Your task to perform on an android device: Show me some nice wallpapers for my phone Image 0: 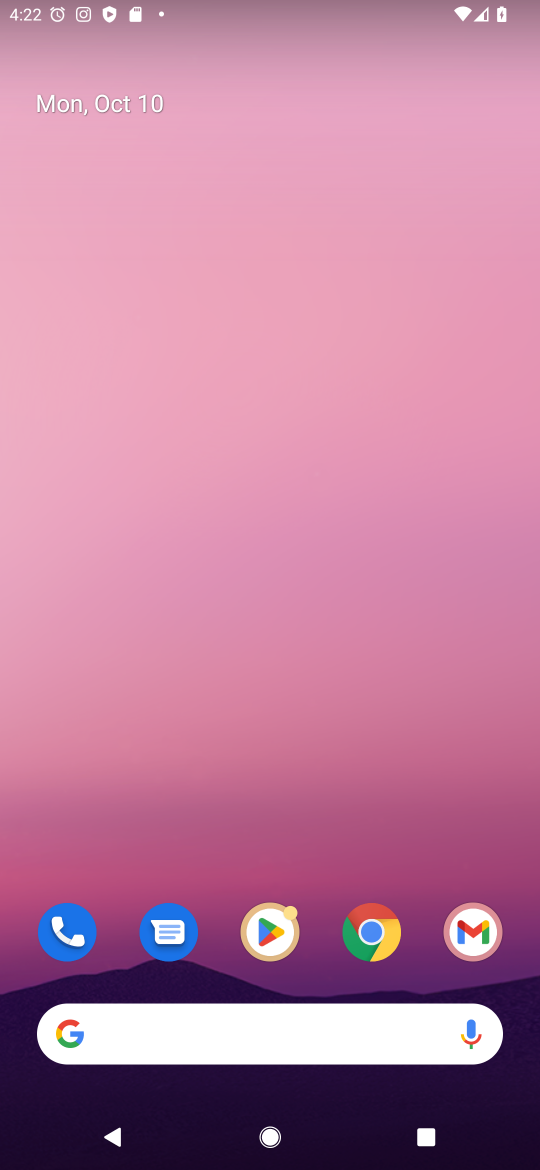
Step 0: press home button
Your task to perform on an android device: Show me some nice wallpapers for my phone Image 1: 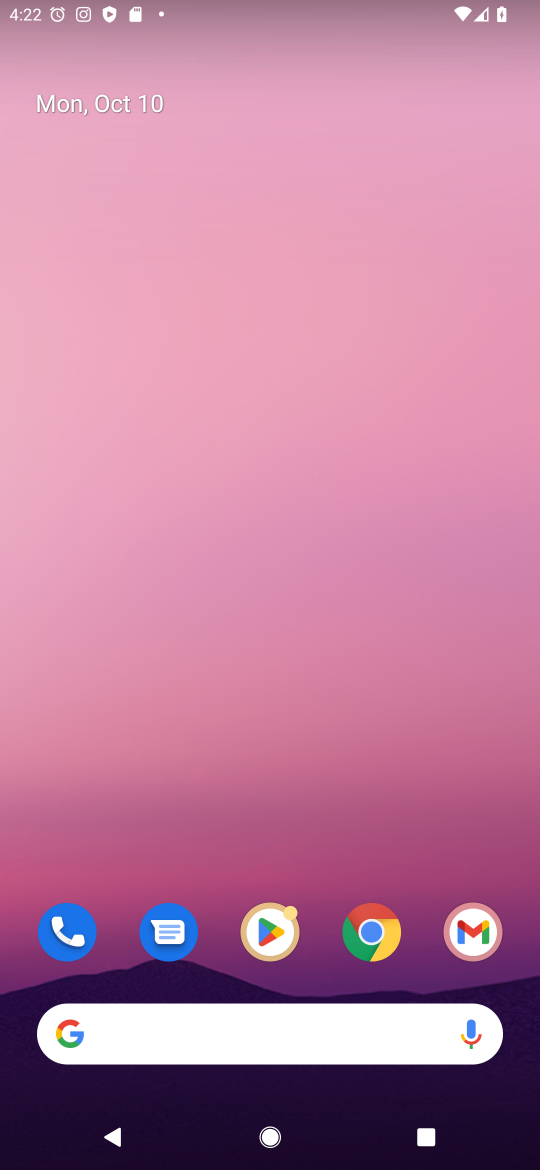
Step 1: click (352, 1044)
Your task to perform on an android device: Show me some nice wallpapers for my phone Image 2: 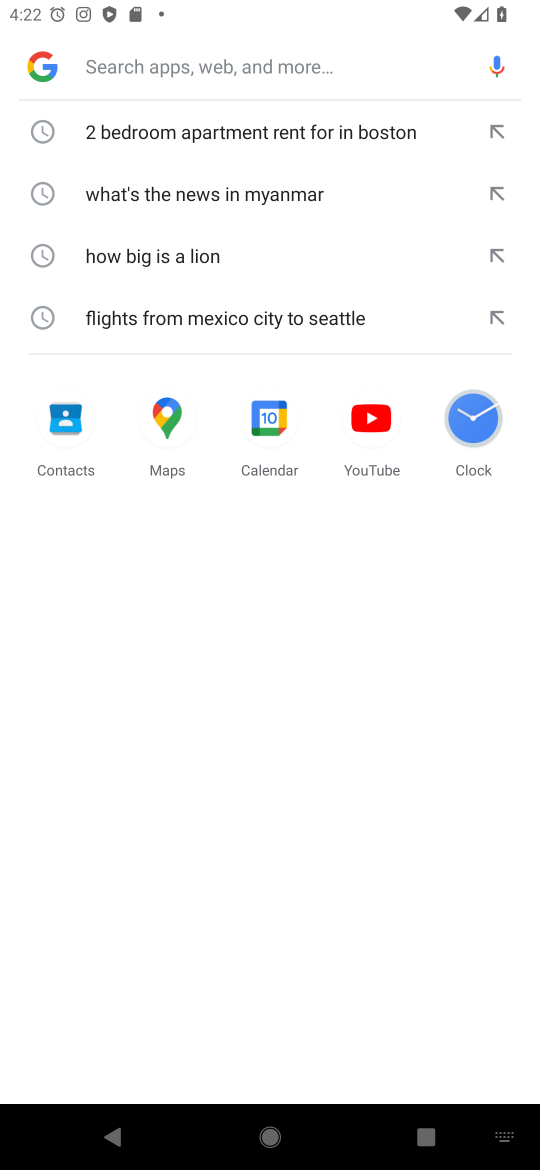
Step 2: type "Show me some nice wallpapers for my phone"
Your task to perform on an android device: Show me some nice wallpapers for my phone Image 3: 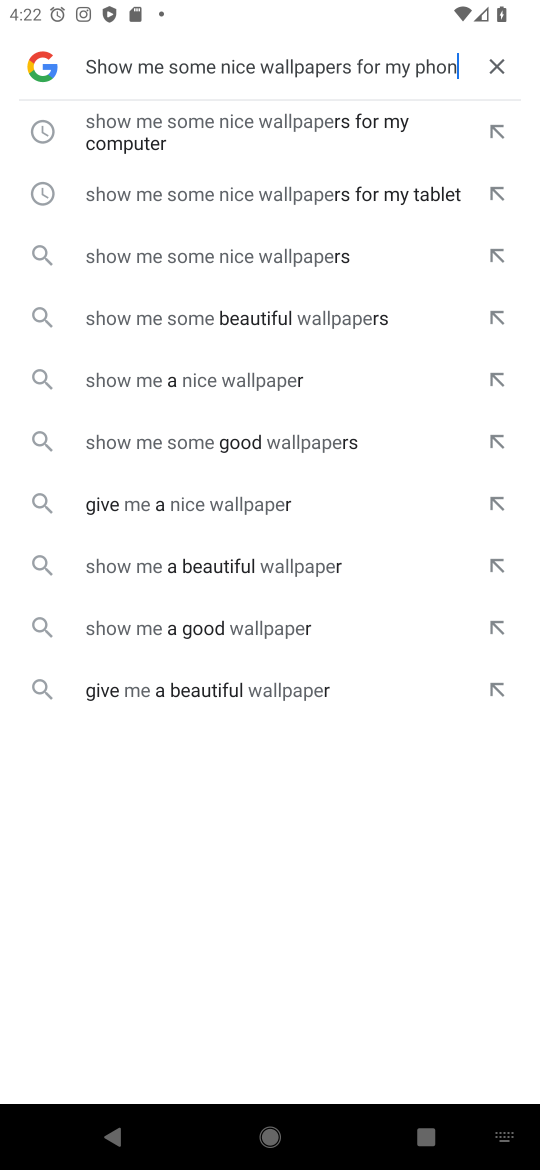
Step 3: press enter
Your task to perform on an android device: Show me some nice wallpapers for my phone Image 4: 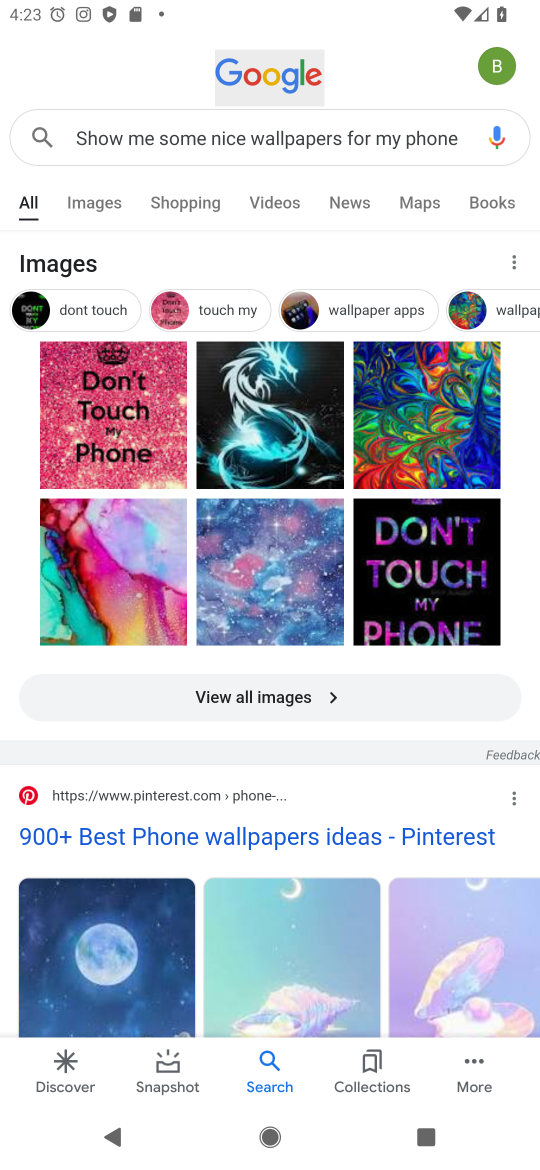
Step 4: click (268, 701)
Your task to perform on an android device: Show me some nice wallpapers for my phone Image 5: 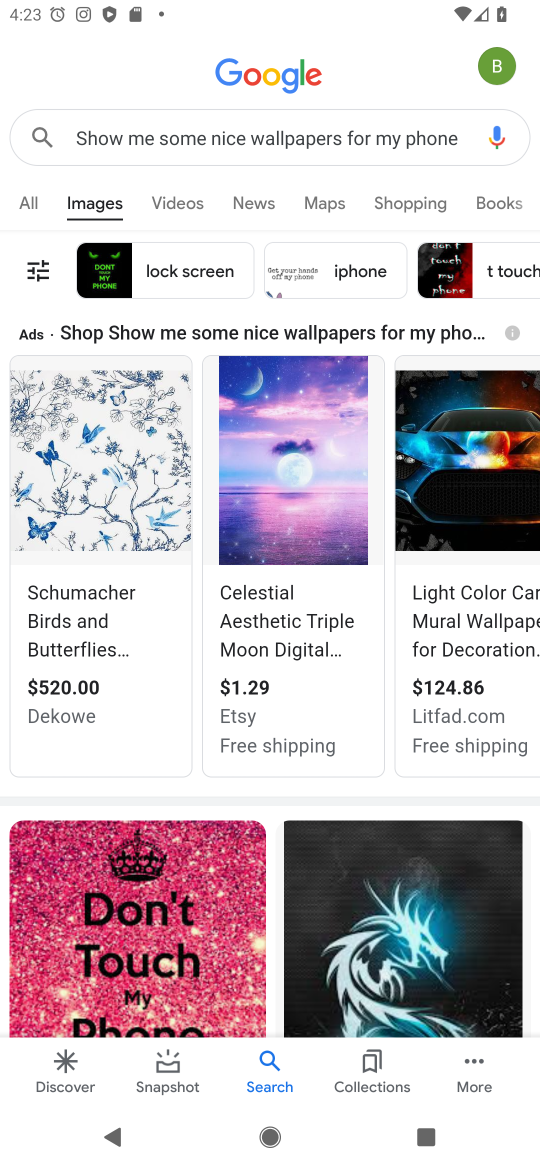
Step 5: task complete